Your task to perform on an android device: Go to wifi settings Image 0: 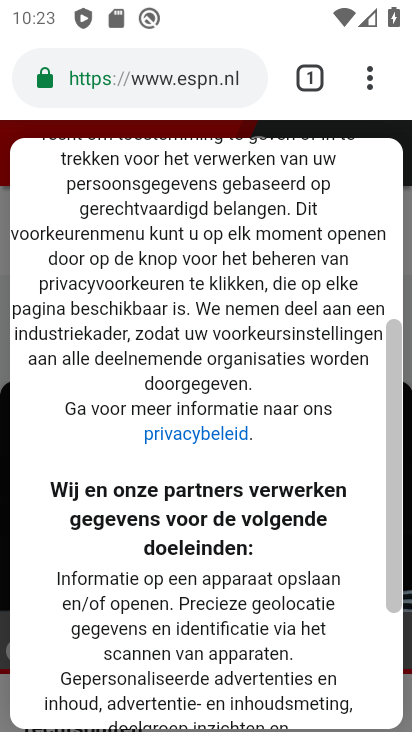
Step 0: drag from (348, 560) to (356, 176)
Your task to perform on an android device: Go to wifi settings Image 1: 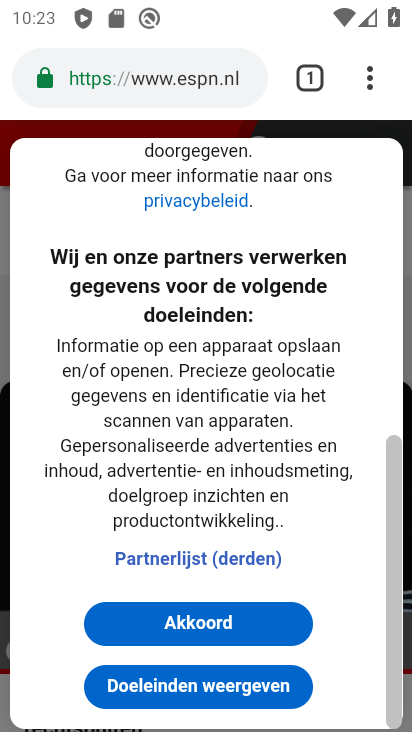
Step 1: press home button
Your task to perform on an android device: Go to wifi settings Image 2: 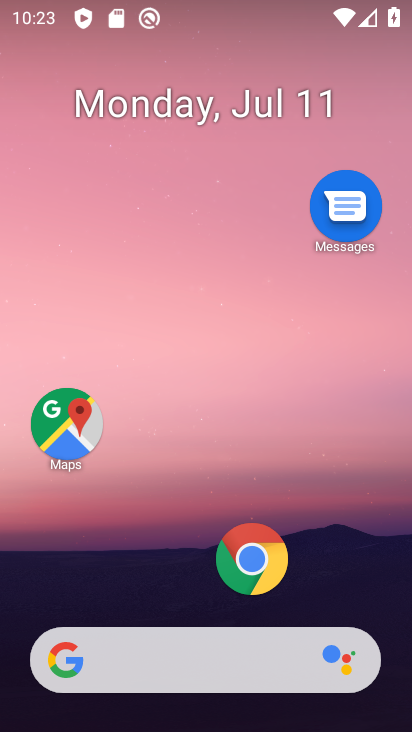
Step 2: drag from (351, 579) to (375, 137)
Your task to perform on an android device: Go to wifi settings Image 3: 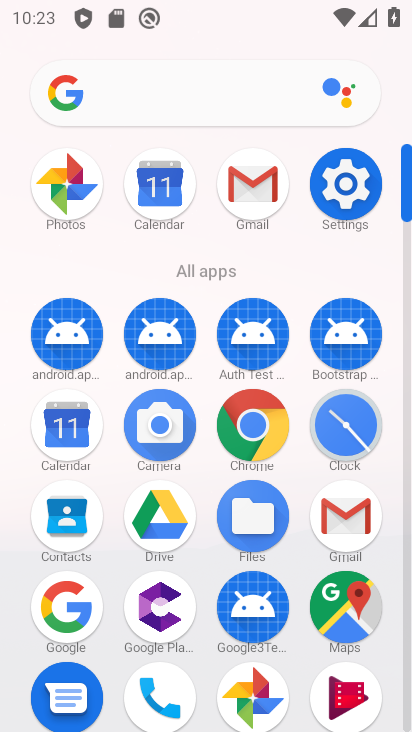
Step 3: click (353, 199)
Your task to perform on an android device: Go to wifi settings Image 4: 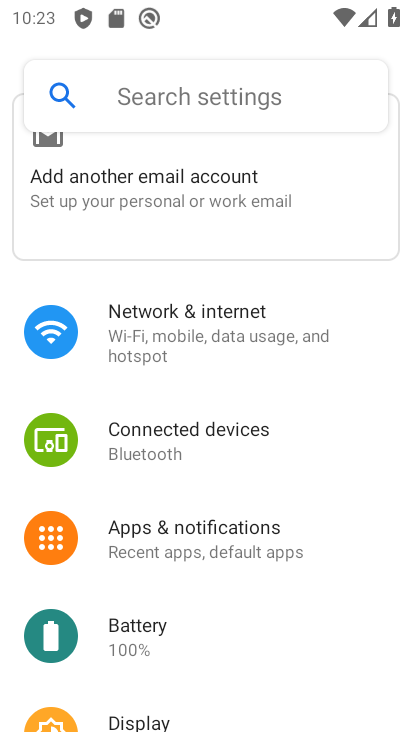
Step 4: click (262, 353)
Your task to perform on an android device: Go to wifi settings Image 5: 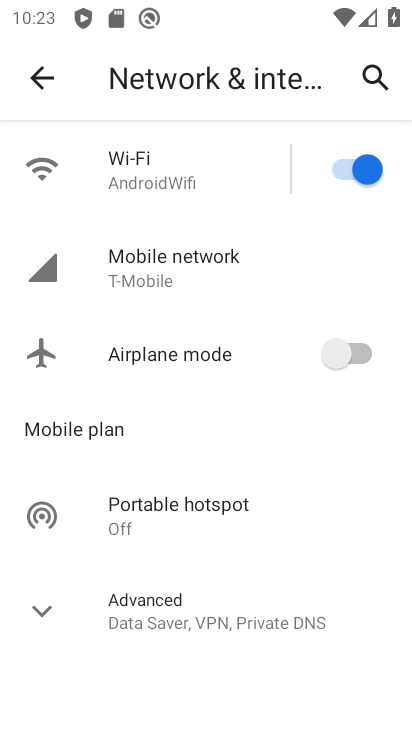
Step 5: click (165, 178)
Your task to perform on an android device: Go to wifi settings Image 6: 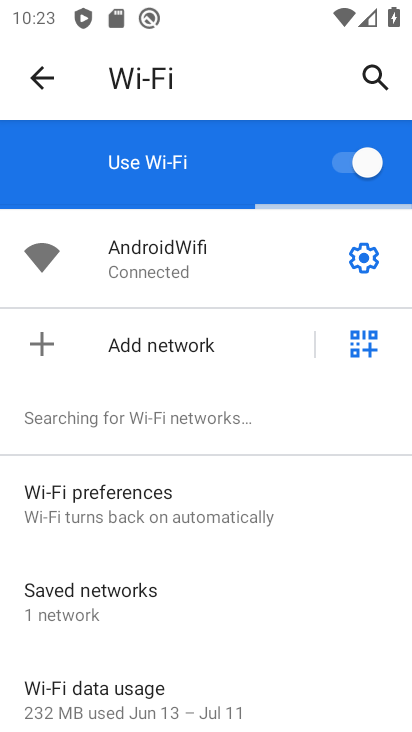
Step 6: click (148, 260)
Your task to perform on an android device: Go to wifi settings Image 7: 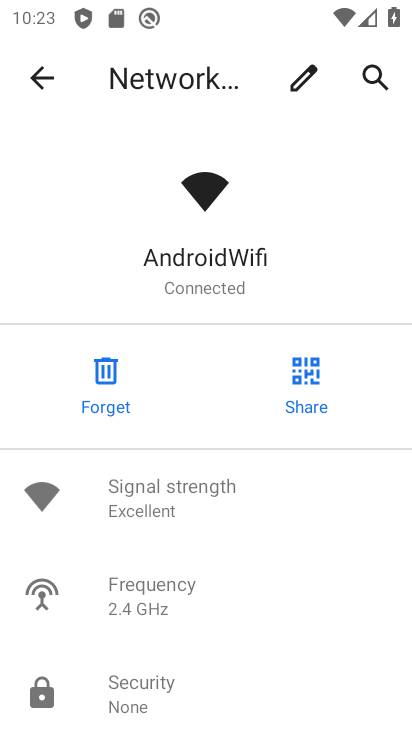
Step 7: task complete